Your task to perform on an android device: Open the phone app and click the voicemail tab. Image 0: 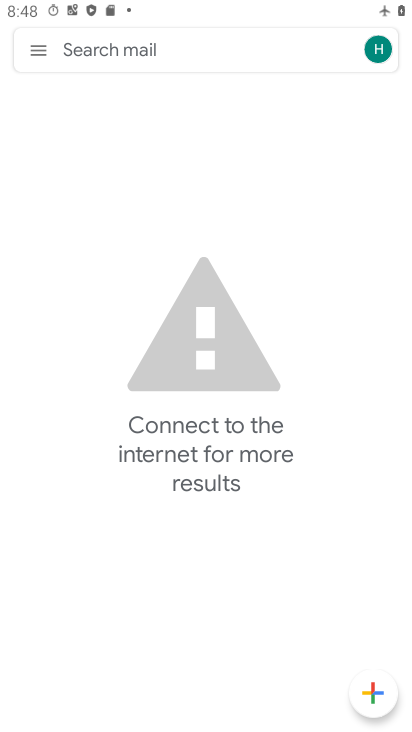
Step 0: press home button
Your task to perform on an android device: Open the phone app and click the voicemail tab. Image 1: 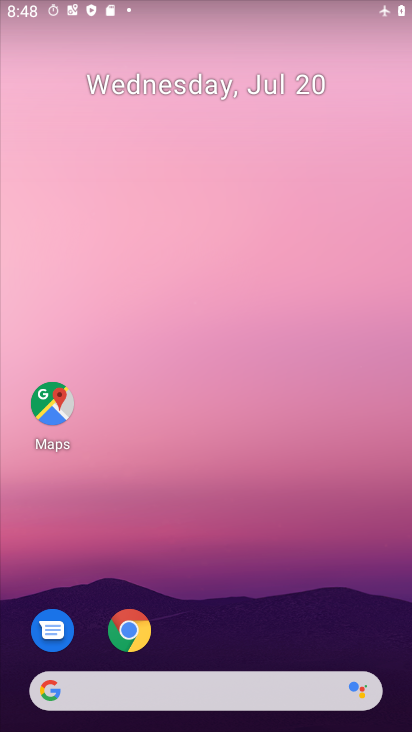
Step 1: drag from (252, 549) to (237, 169)
Your task to perform on an android device: Open the phone app and click the voicemail tab. Image 2: 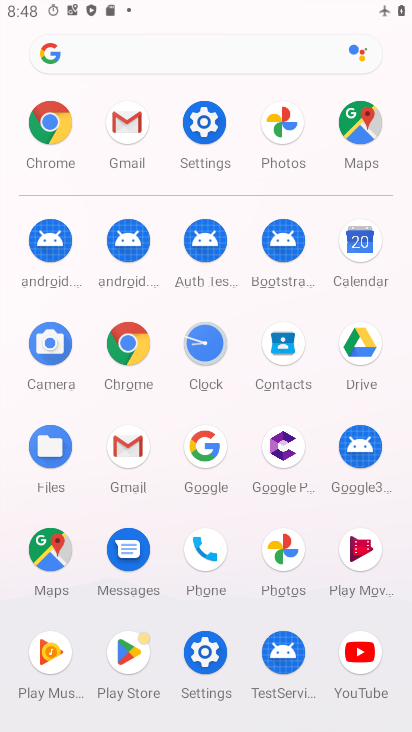
Step 2: click (214, 535)
Your task to perform on an android device: Open the phone app and click the voicemail tab. Image 3: 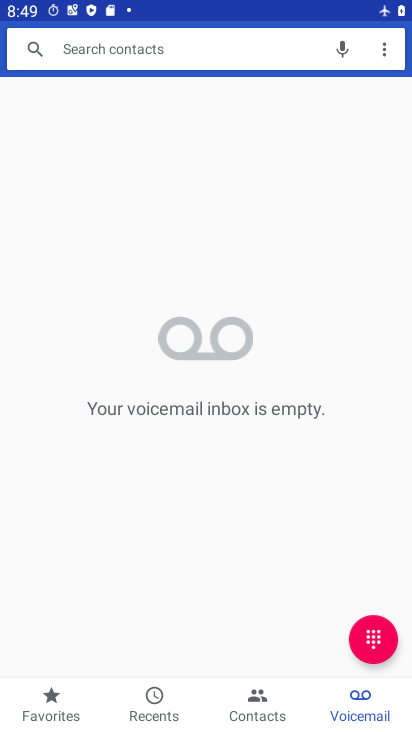
Step 3: task complete